Your task to perform on an android device: turn notification dots on Image 0: 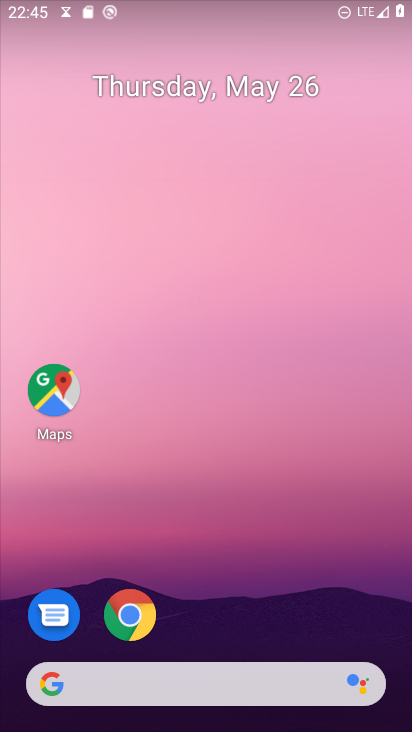
Step 0: drag from (244, 593) to (230, 306)
Your task to perform on an android device: turn notification dots on Image 1: 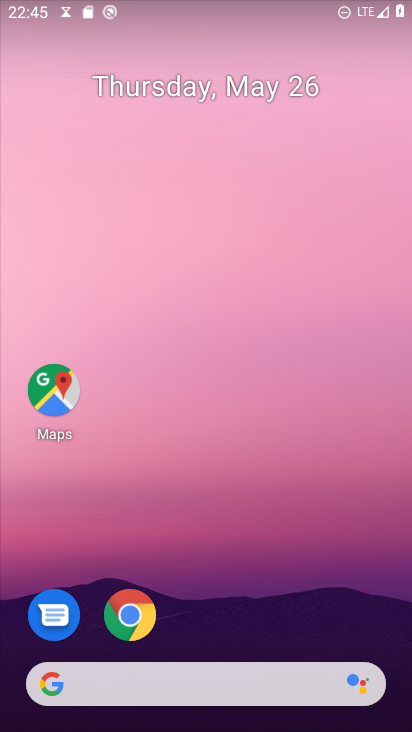
Step 1: drag from (236, 642) to (259, 272)
Your task to perform on an android device: turn notification dots on Image 2: 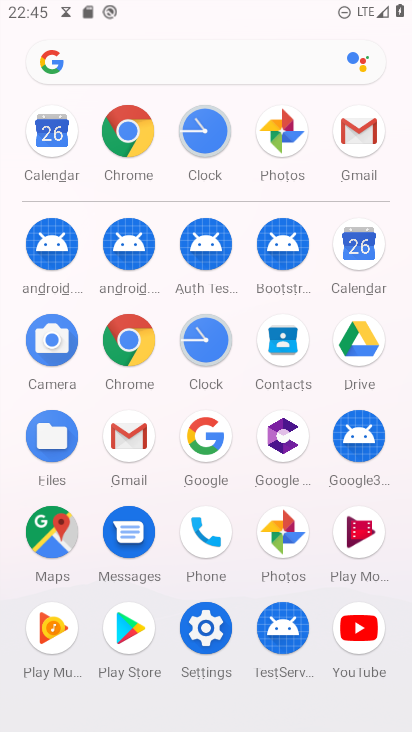
Step 2: click (198, 607)
Your task to perform on an android device: turn notification dots on Image 3: 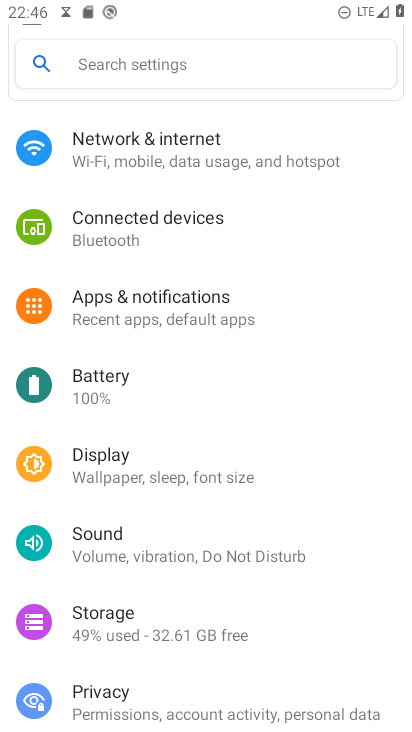
Step 3: click (202, 56)
Your task to perform on an android device: turn notification dots on Image 4: 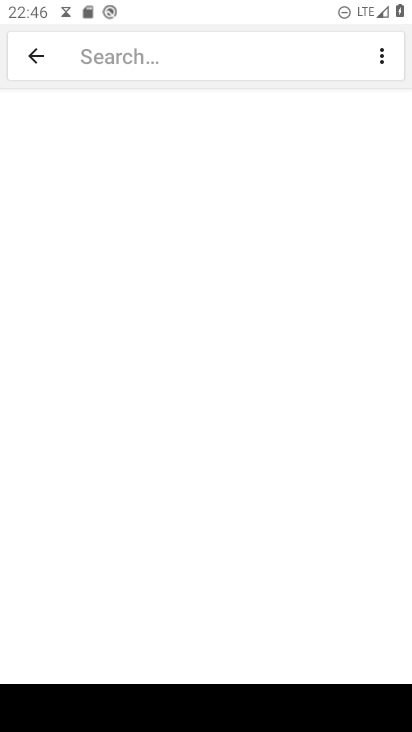
Step 4: type "notification dots"
Your task to perform on an android device: turn notification dots on Image 5: 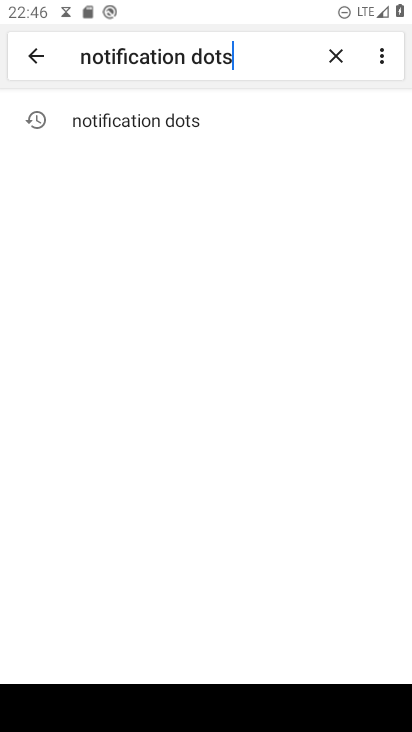
Step 5: click (170, 134)
Your task to perform on an android device: turn notification dots on Image 6: 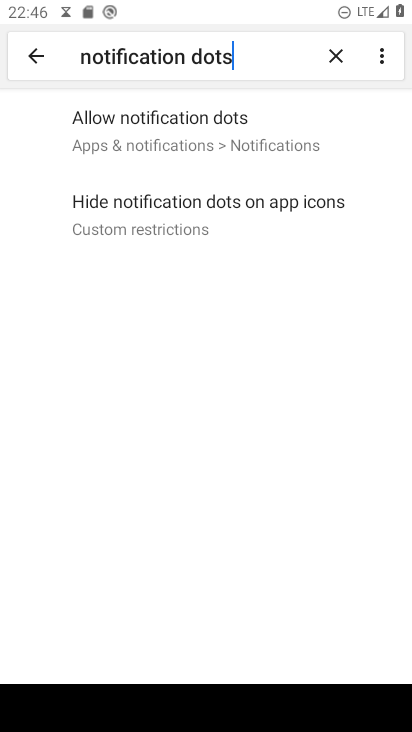
Step 6: click (172, 127)
Your task to perform on an android device: turn notification dots on Image 7: 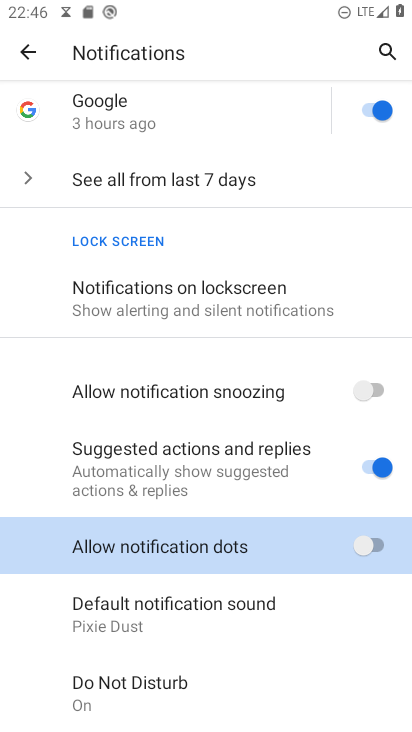
Step 7: click (388, 540)
Your task to perform on an android device: turn notification dots on Image 8: 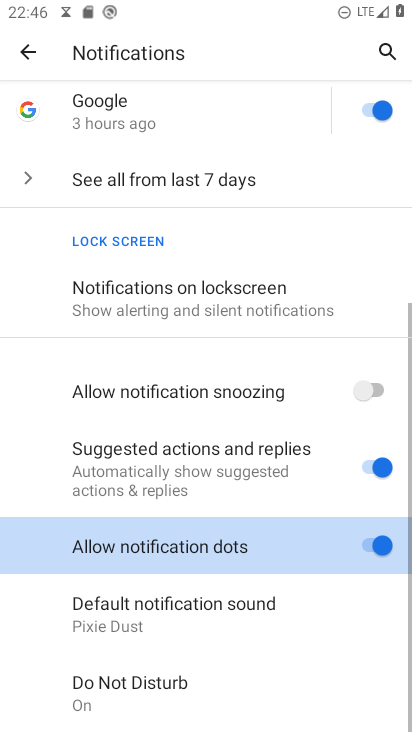
Step 8: task complete